Your task to perform on an android device: Turn on the flashlight Image 0: 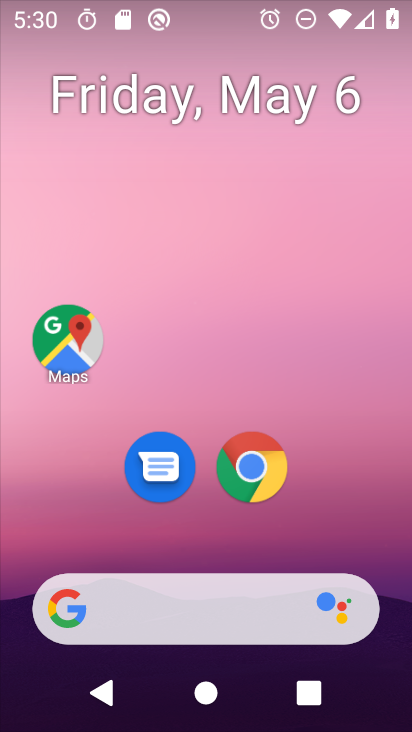
Step 0: drag from (315, 511) to (194, 93)
Your task to perform on an android device: Turn on the flashlight Image 1: 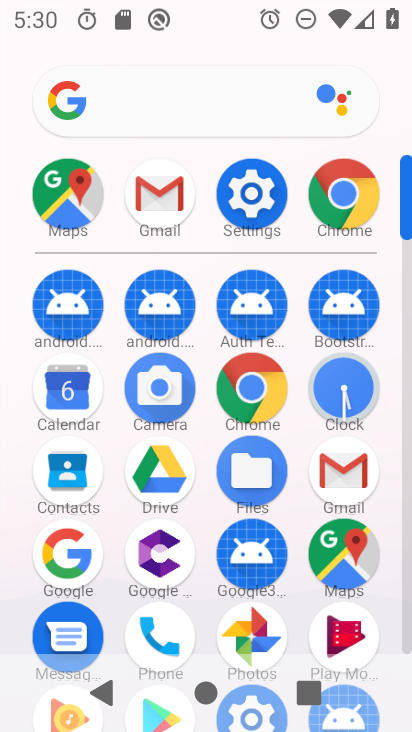
Step 1: task complete